Your task to perform on an android device: toggle pop-ups in chrome Image 0: 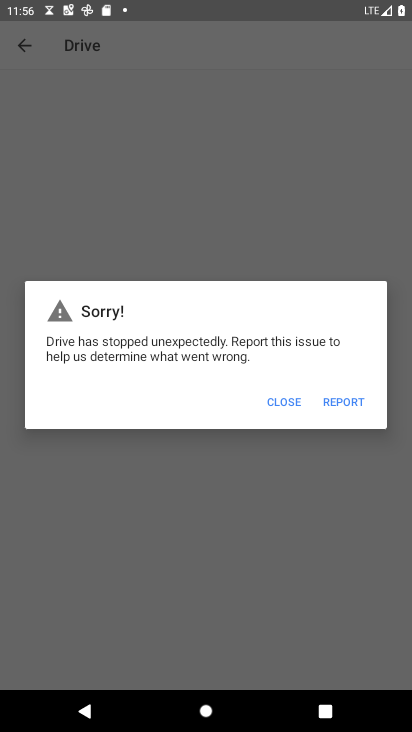
Step 0: press home button
Your task to perform on an android device: toggle pop-ups in chrome Image 1: 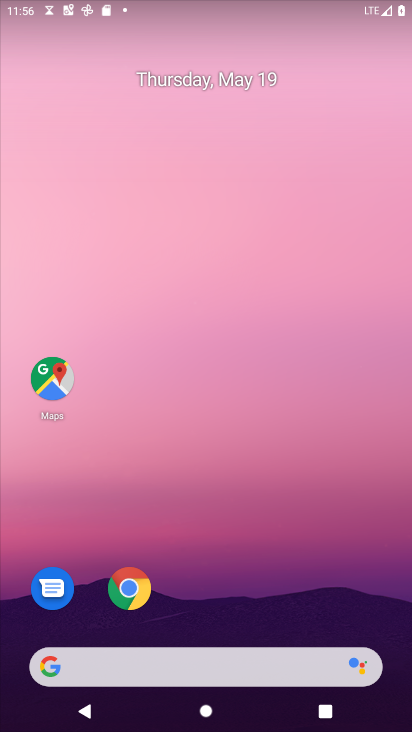
Step 1: drag from (251, 512) to (195, 16)
Your task to perform on an android device: toggle pop-ups in chrome Image 2: 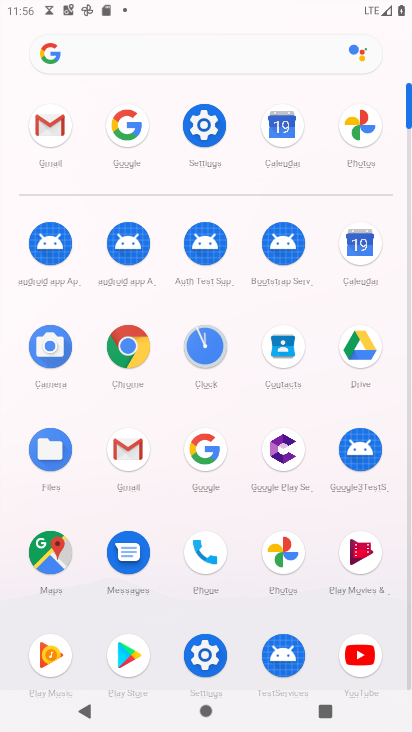
Step 2: click (118, 335)
Your task to perform on an android device: toggle pop-ups in chrome Image 3: 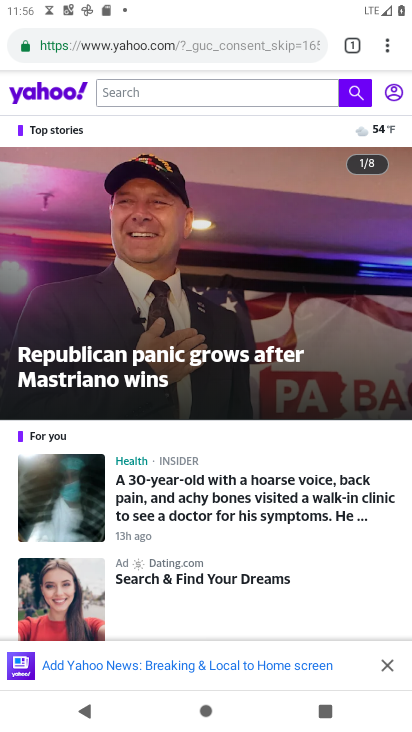
Step 3: click (392, 44)
Your task to perform on an android device: toggle pop-ups in chrome Image 4: 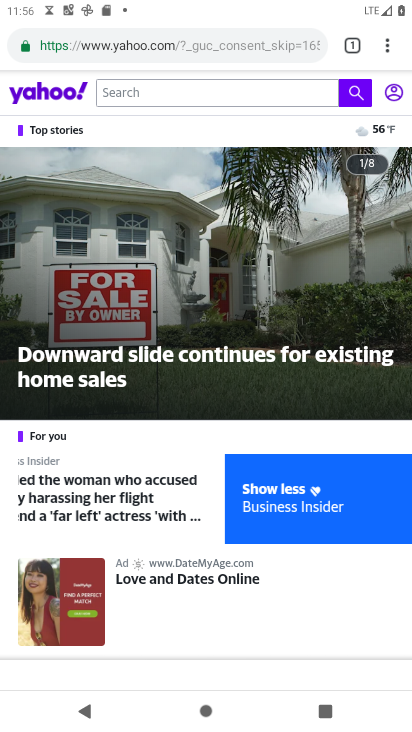
Step 4: click (382, 43)
Your task to perform on an android device: toggle pop-ups in chrome Image 5: 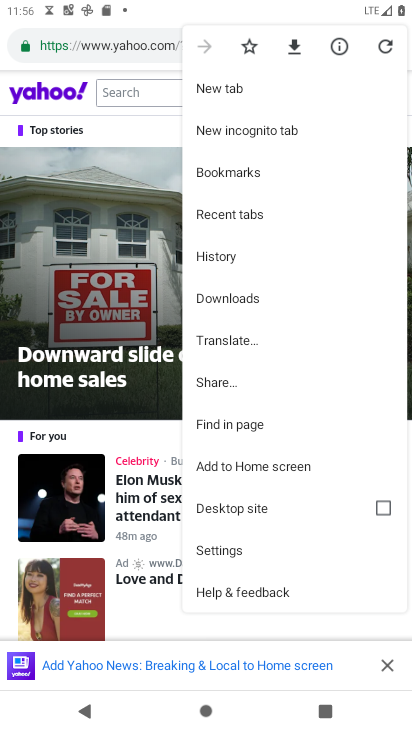
Step 5: click (255, 551)
Your task to perform on an android device: toggle pop-ups in chrome Image 6: 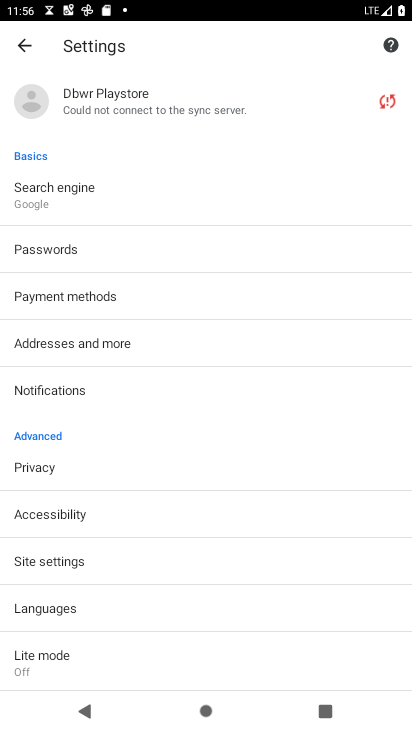
Step 6: click (178, 544)
Your task to perform on an android device: toggle pop-ups in chrome Image 7: 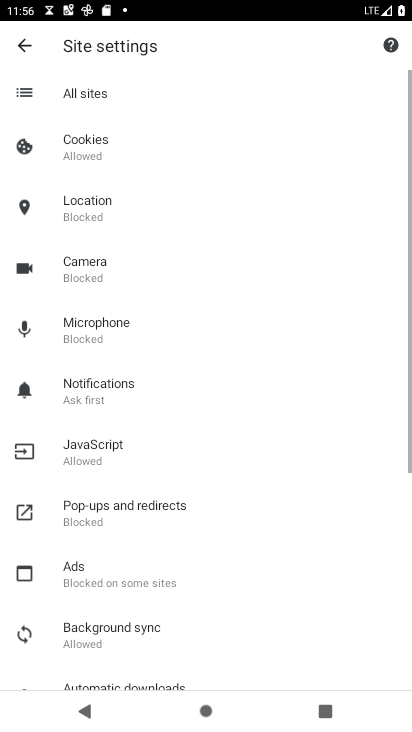
Step 7: click (181, 510)
Your task to perform on an android device: toggle pop-ups in chrome Image 8: 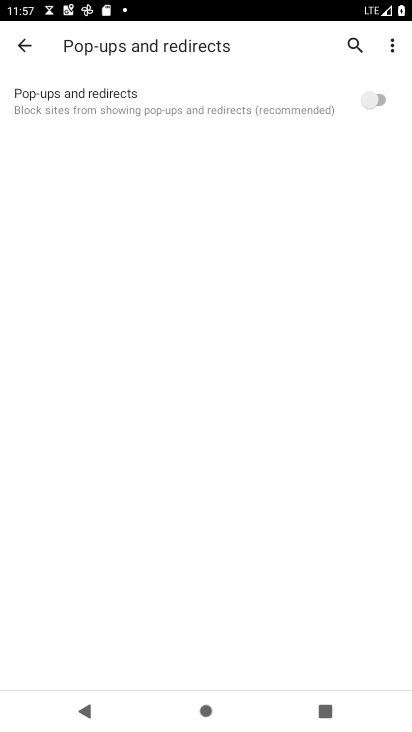
Step 8: click (388, 92)
Your task to perform on an android device: toggle pop-ups in chrome Image 9: 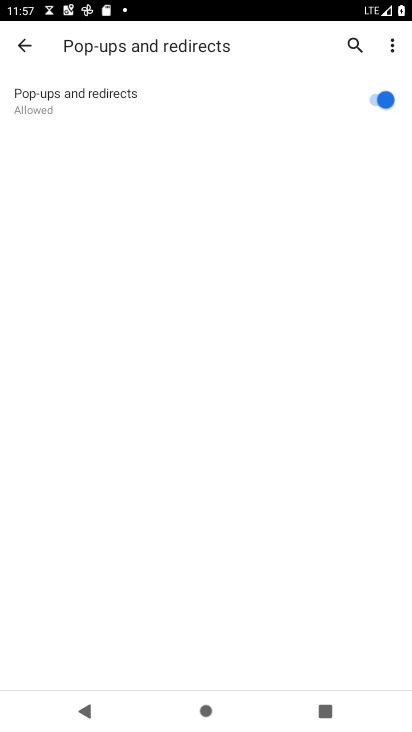
Step 9: task complete